Your task to perform on an android device: set default search engine in the chrome app Image 0: 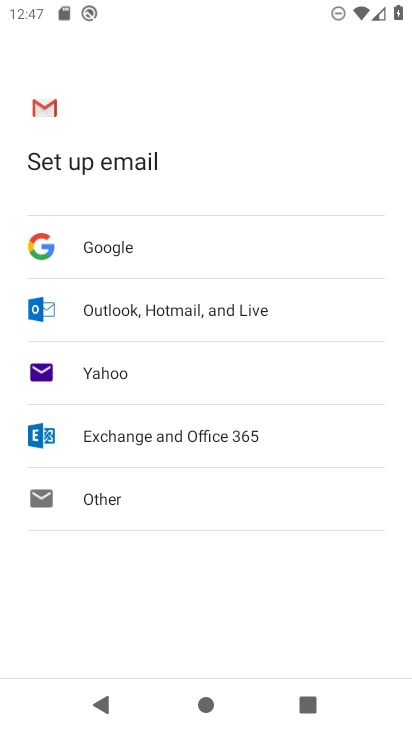
Step 0: press back button
Your task to perform on an android device: set default search engine in the chrome app Image 1: 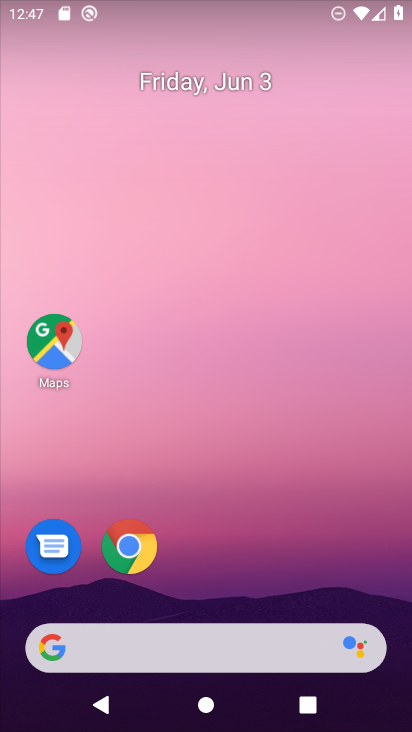
Step 1: click (131, 546)
Your task to perform on an android device: set default search engine in the chrome app Image 2: 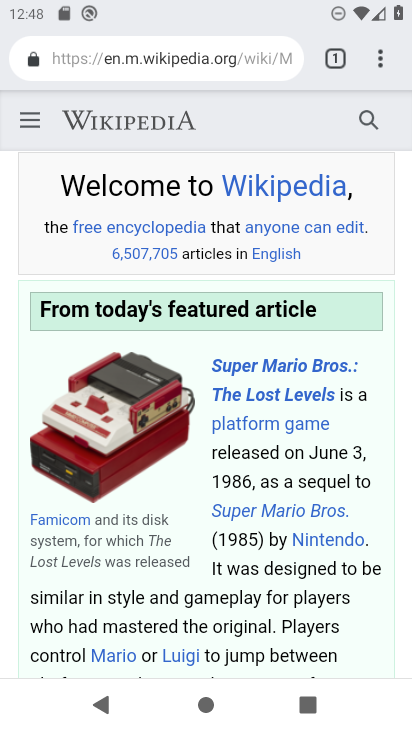
Step 2: click (380, 58)
Your task to perform on an android device: set default search engine in the chrome app Image 3: 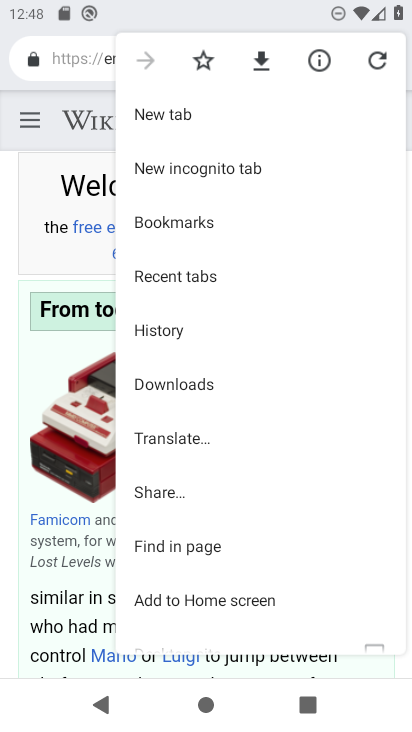
Step 3: drag from (210, 469) to (224, 397)
Your task to perform on an android device: set default search engine in the chrome app Image 4: 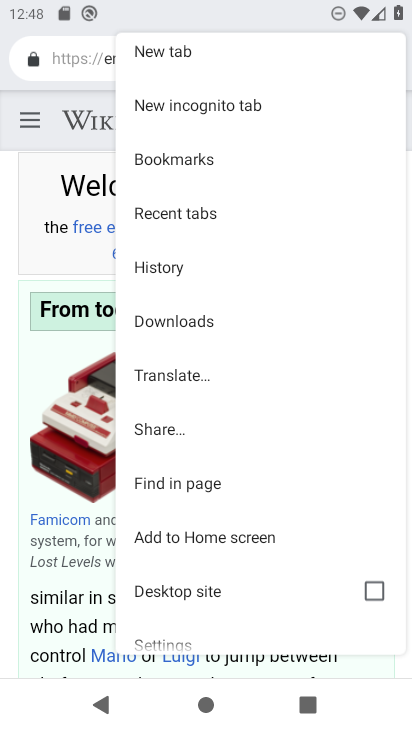
Step 4: drag from (197, 509) to (238, 422)
Your task to perform on an android device: set default search engine in the chrome app Image 5: 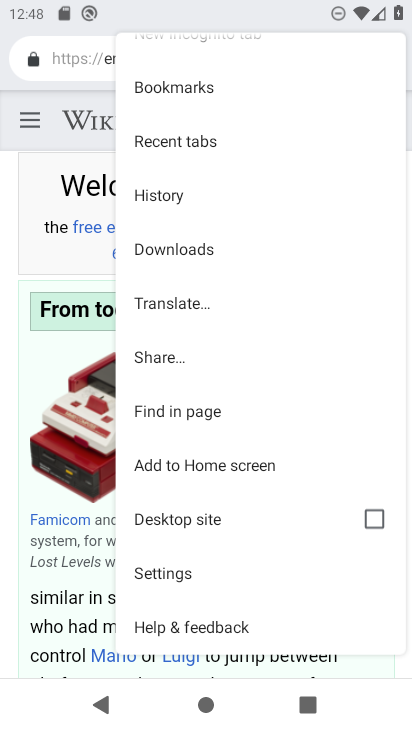
Step 5: click (173, 567)
Your task to perform on an android device: set default search engine in the chrome app Image 6: 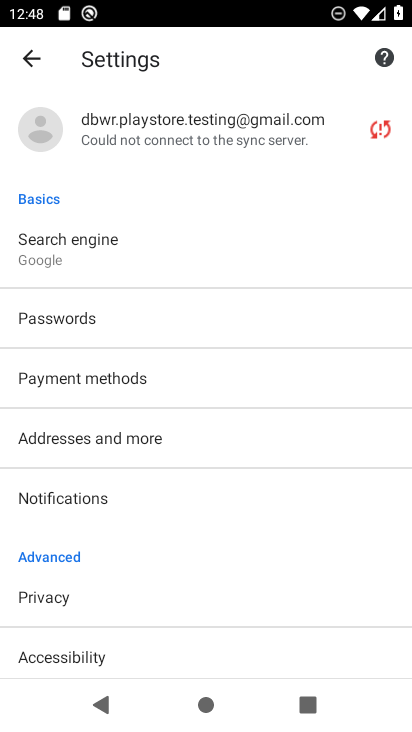
Step 6: click (71, 261)
Your task to perform on an android device: set default search engine in the chrome app Image 7: 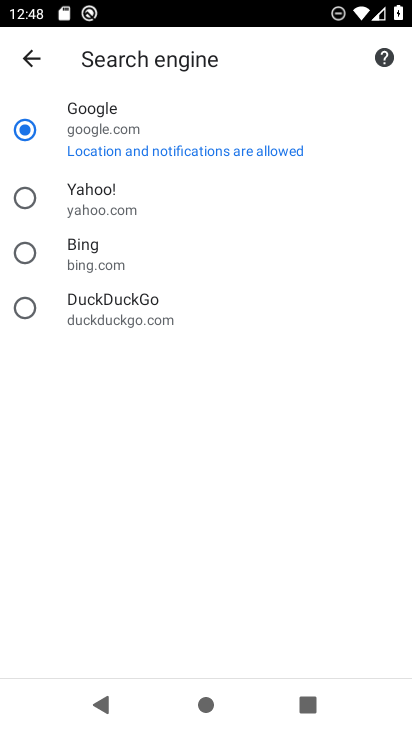
Step 7: click (30, 123)
Your task to perform on an android device: set default search engine in the chrome app Image 8: 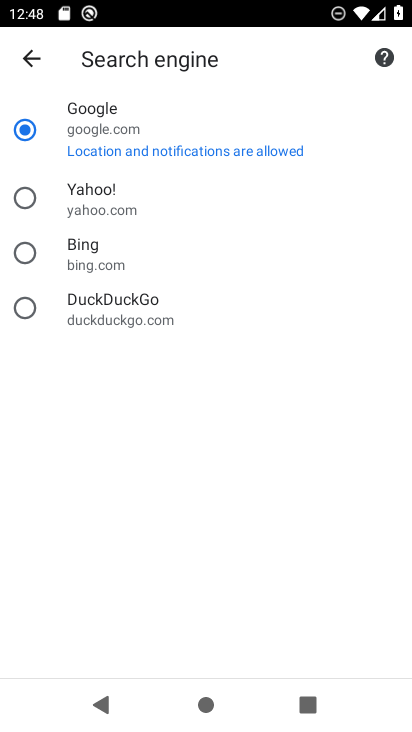
Step 8: task complete